Your task to perform on an android device: open app "McDonald's" (install if not already installed) and go to login screen Image 0: 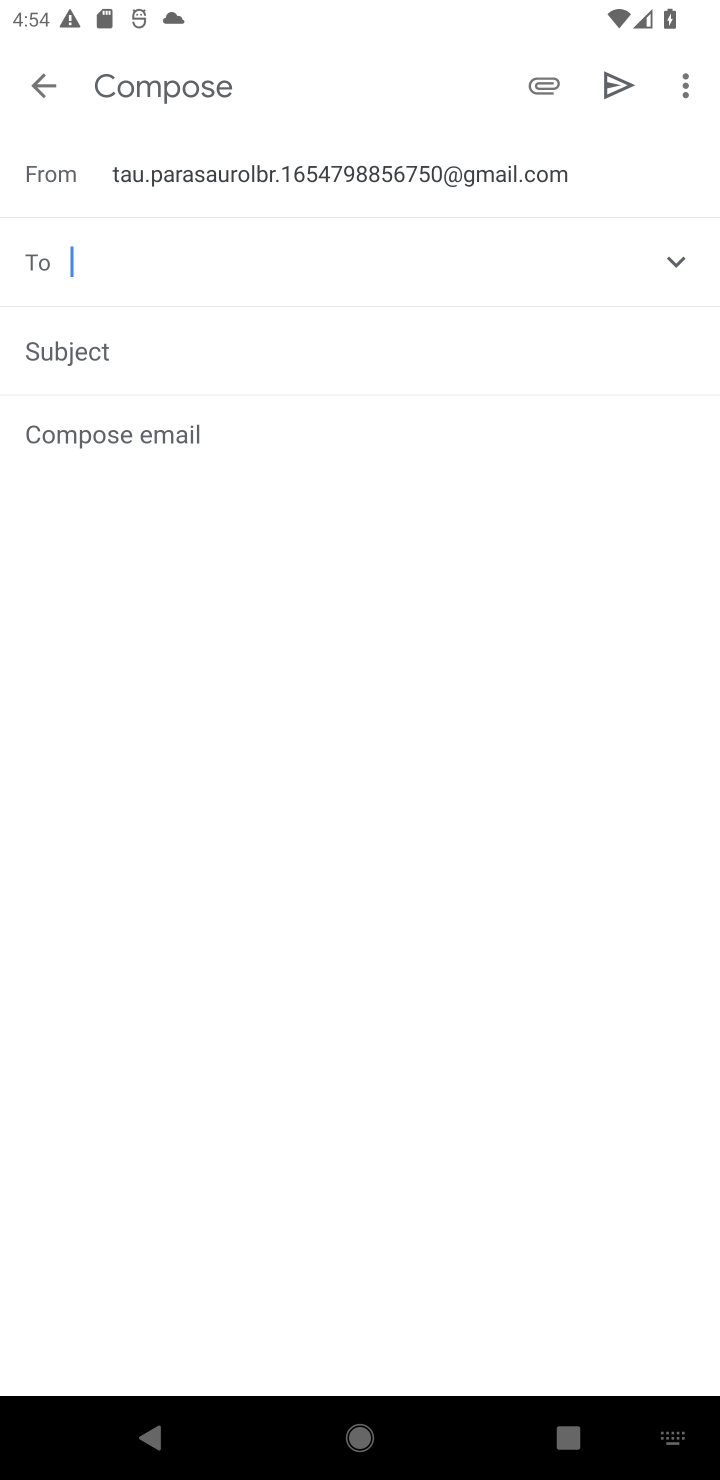
Step 0: press home button
Your task to perform on an android device: open app "McDonald's" (install if not already installed) and go to login screen Image 1: 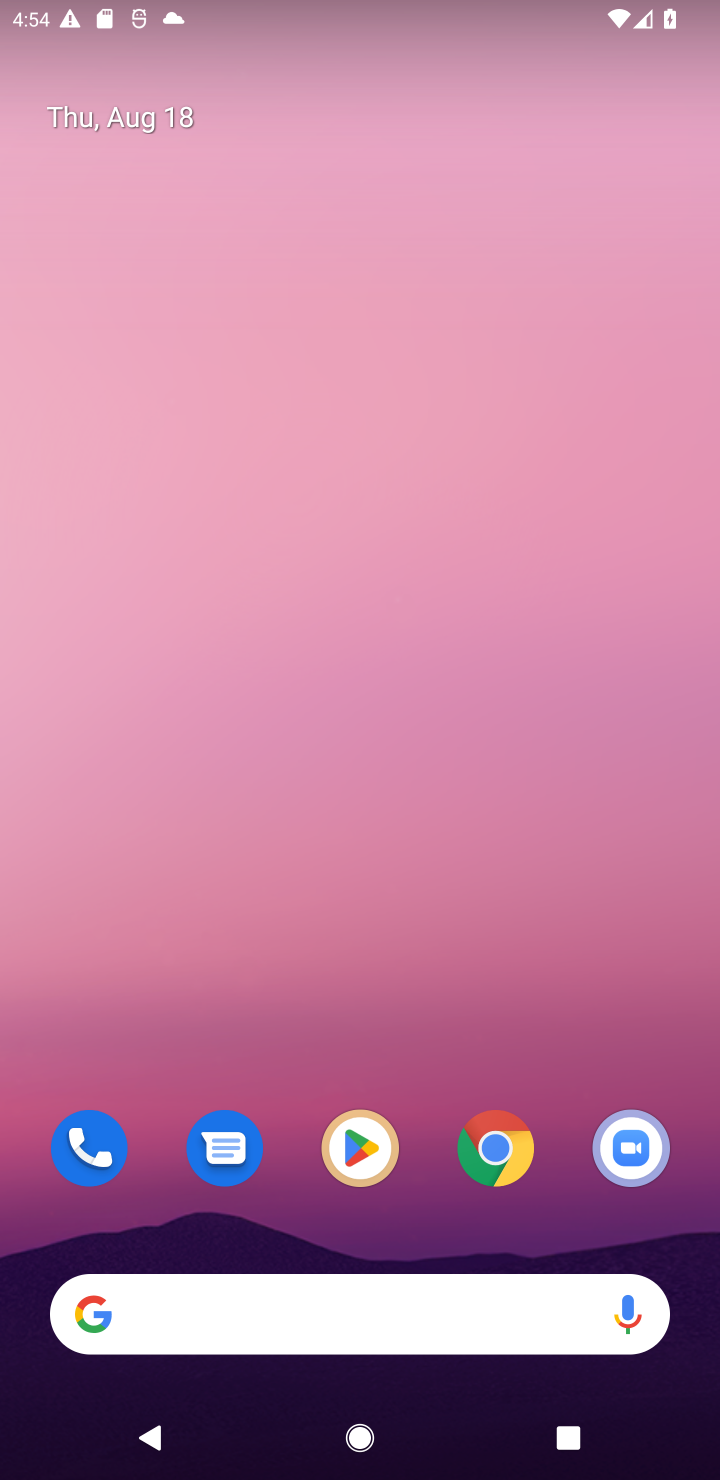
Step 1: drag from (379, 1179) to (285, 42)
Your task to perform on an android device: open app "McDonald's" (install if not already installed) and go to login screen Image 2: 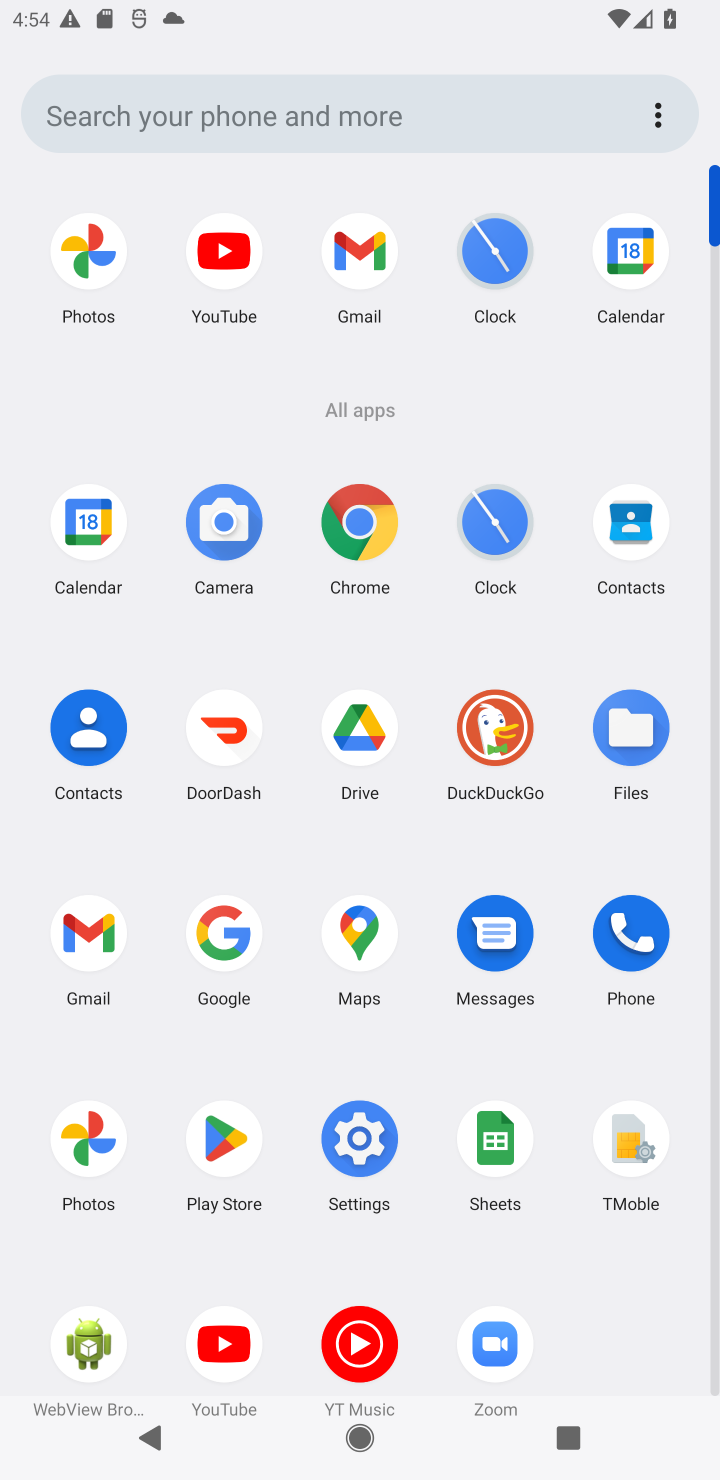
Step 2: click (237, 1135)
Your task to perform on an android device: open app "McDonald's" (install if not already installed) and go to login screen Image 3: 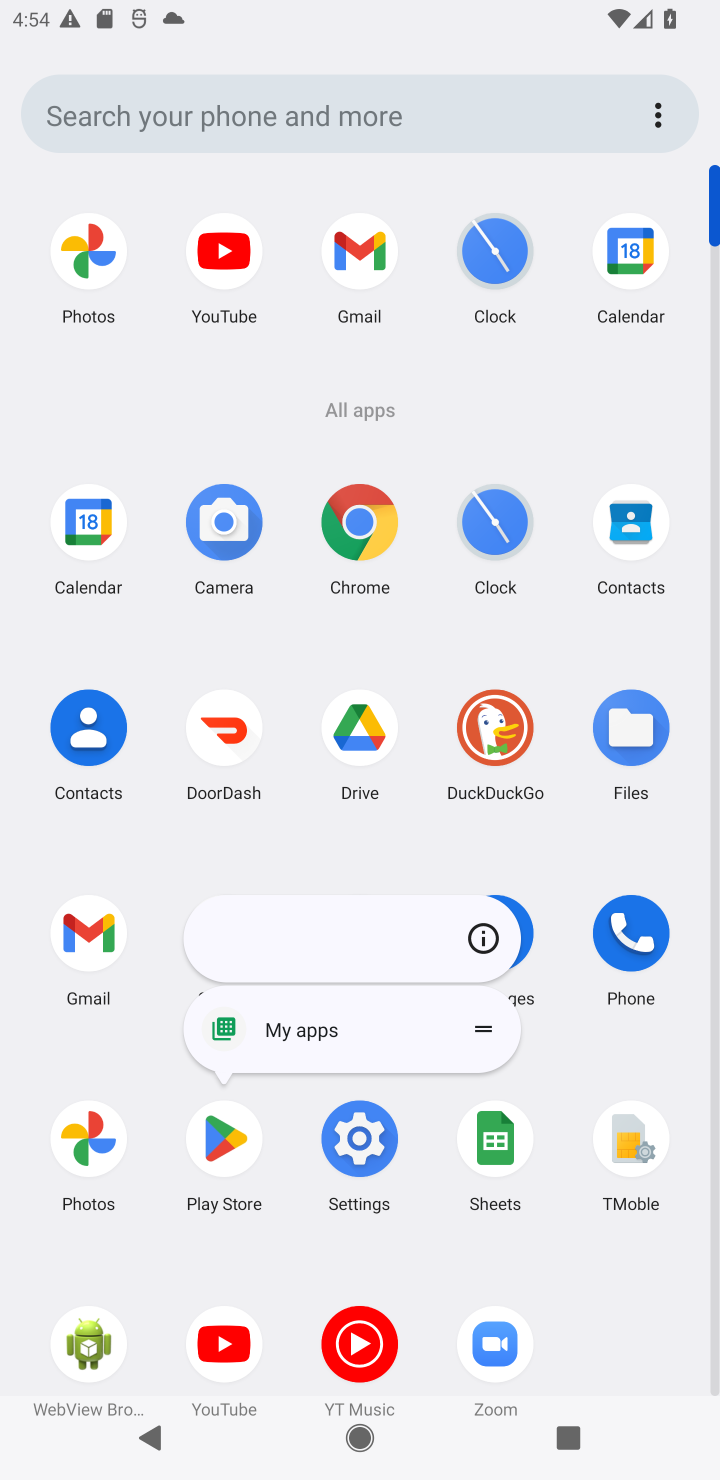
Step 3: click (235, 1129)
Your task to perform on an android device: open app "McDonald's" (install if not already installed) and go to login screen Image 4: 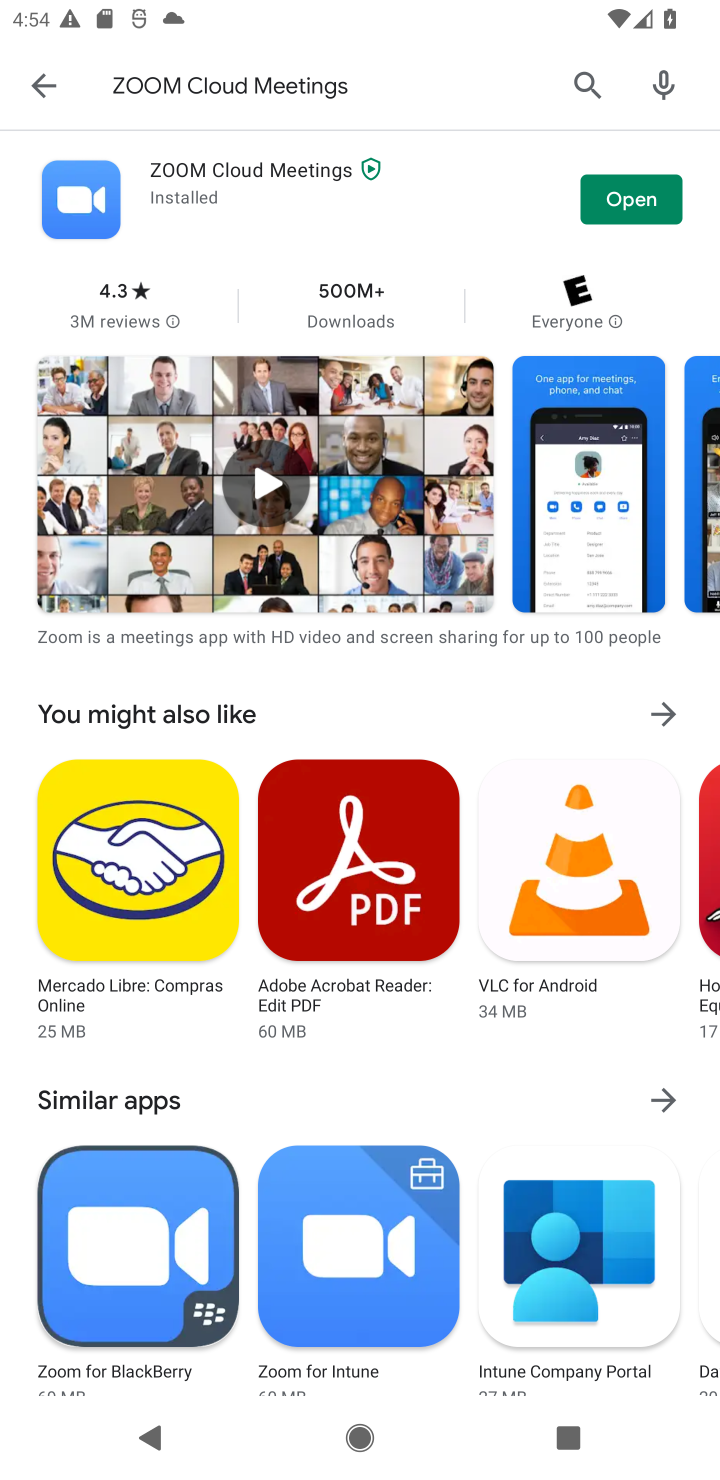
Step 4: click (27, 74)
Your task to perform on an android device: open app "McDonald's" (install if not already installed) and go to login screen Image 5: 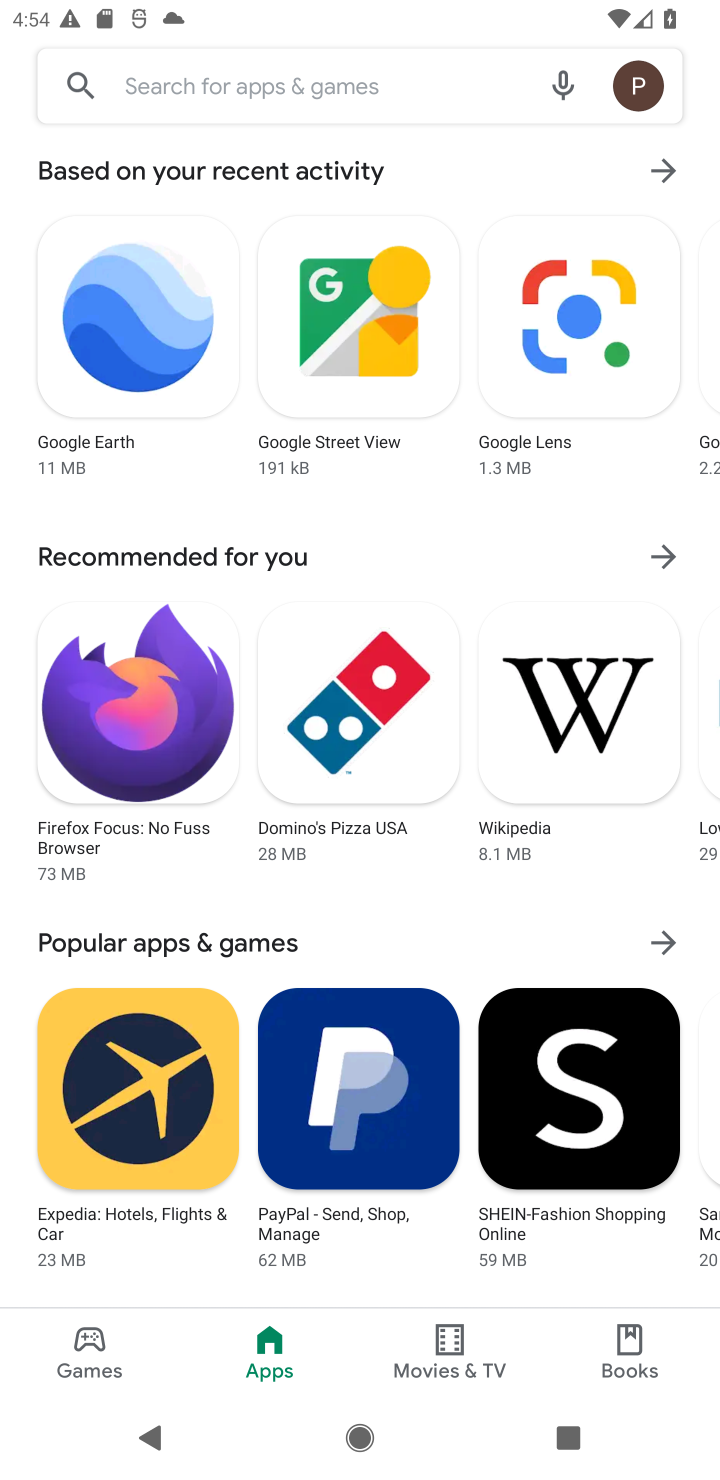
Step 5: click (192, 89)
Your task to perform on an android device: open app "McDonald's" (install if not already installed) and go to login screen Image 6: 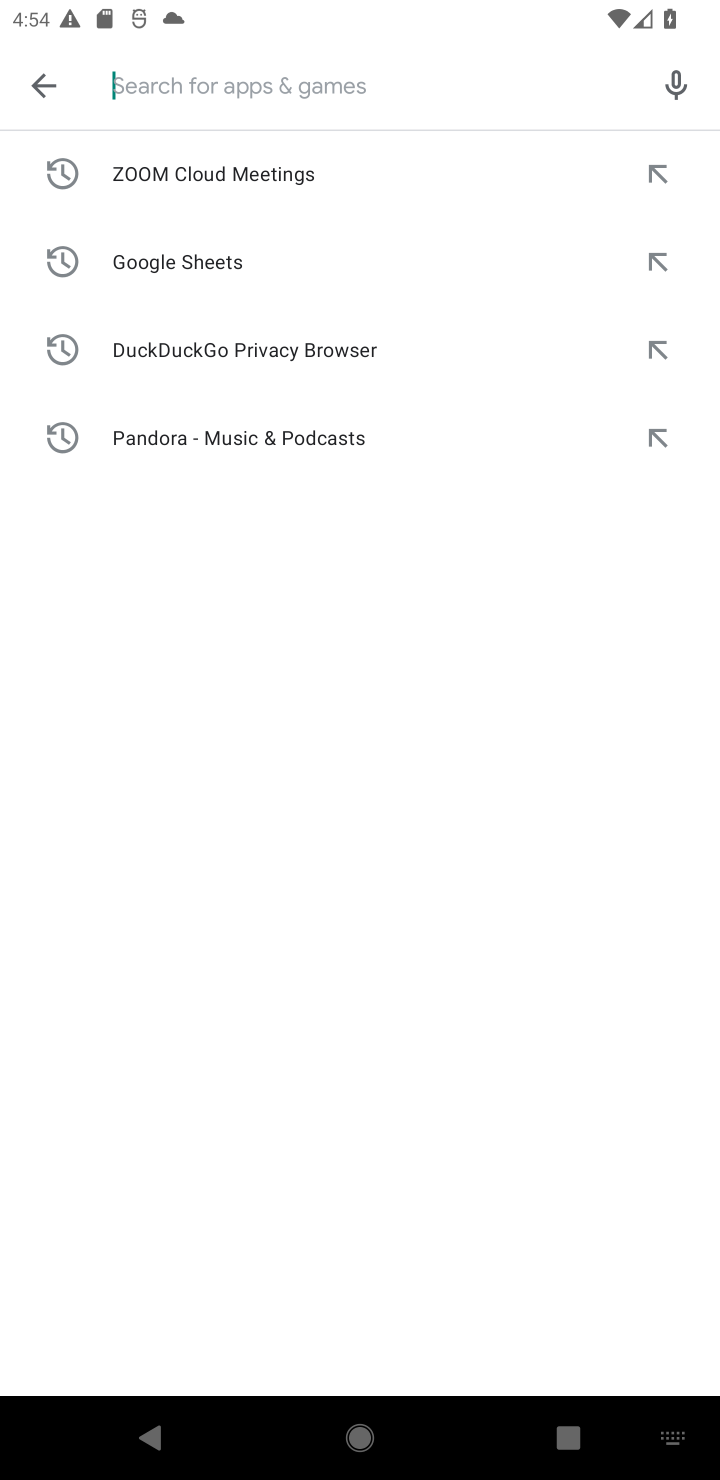
Step 6: type "McDonald's""
Your task to perform on an android device: open app "McDonald's" (install if not already installed) and go to login screen Image 7: 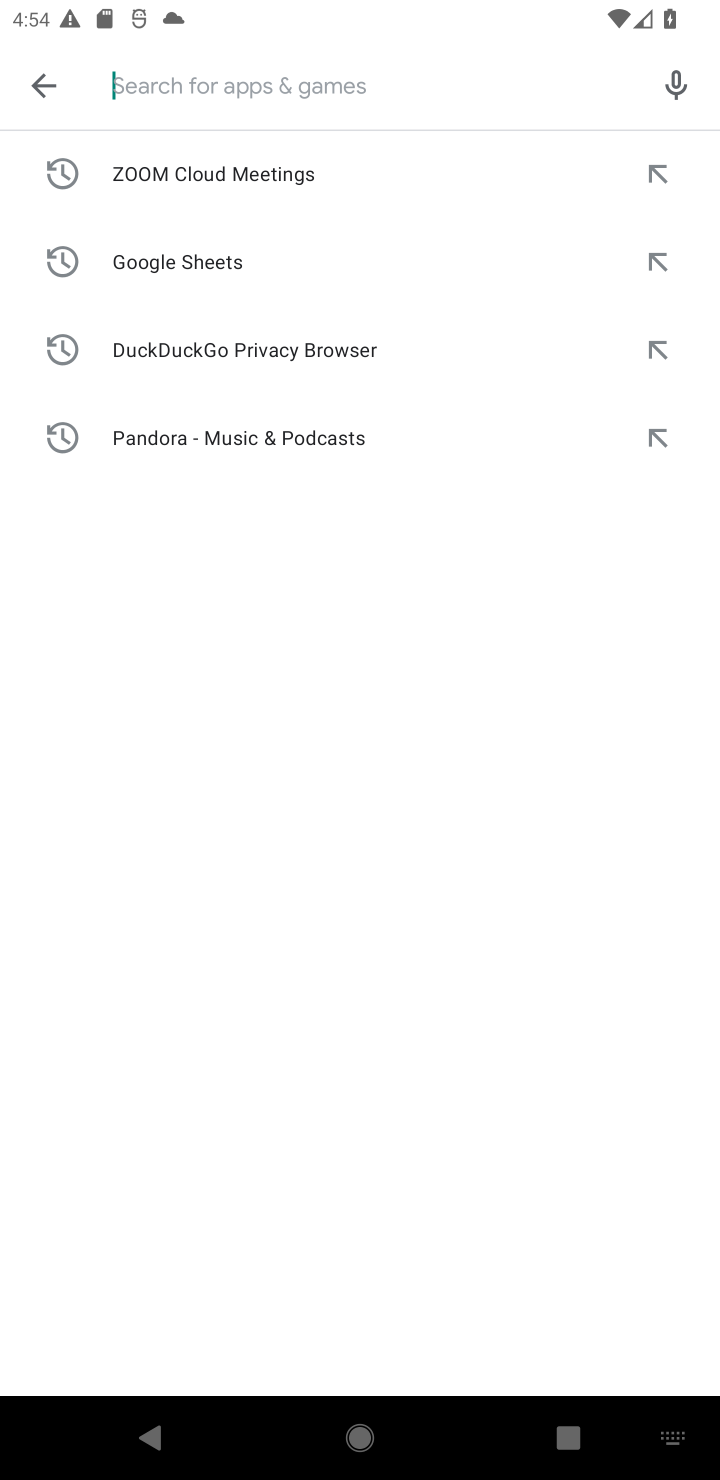
Step 7: press enter
Your task to perform on an android device: open app "McDonald's" (install if not already installed) and go to login screen Image 8: 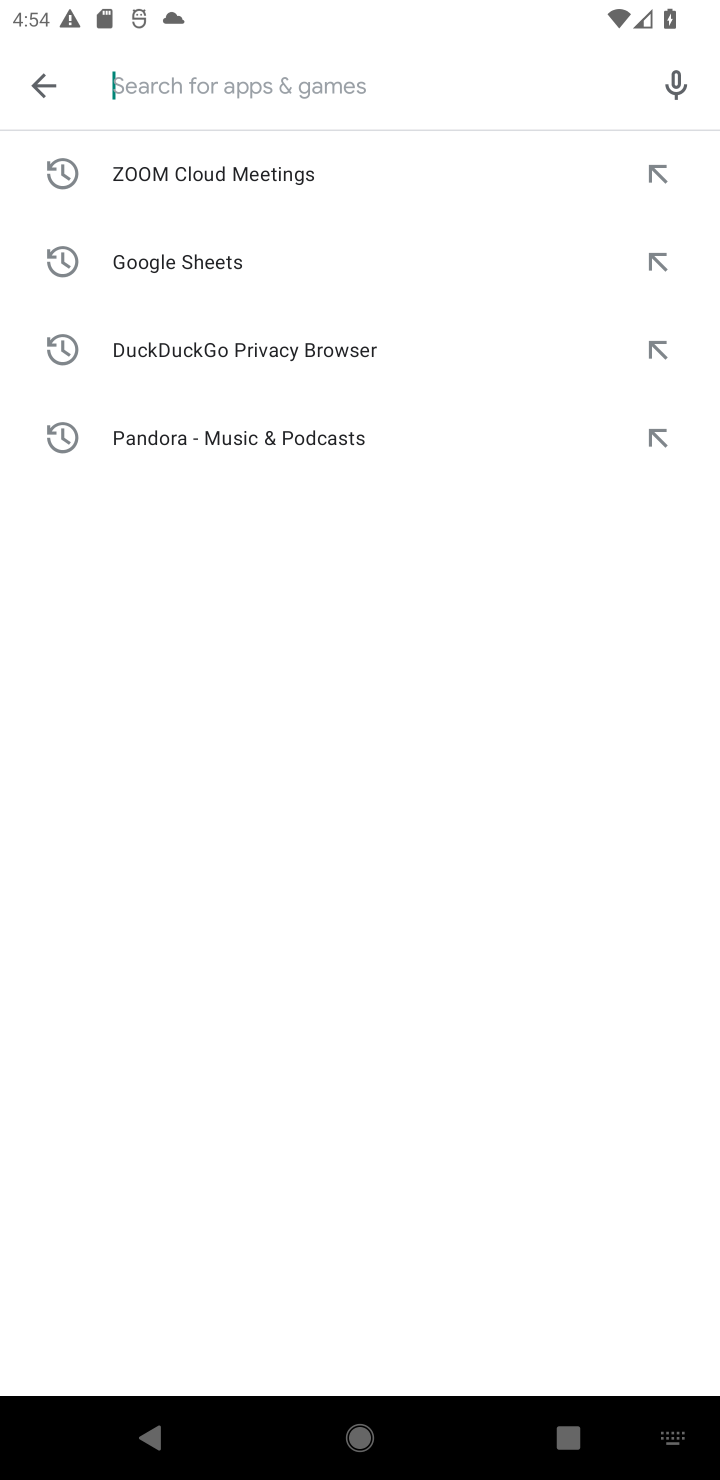
Step 8: type "McDonald's""
Your task to perform on an android device: open app "McDonald's" (install if not already installed) and go to login screen Image 9: 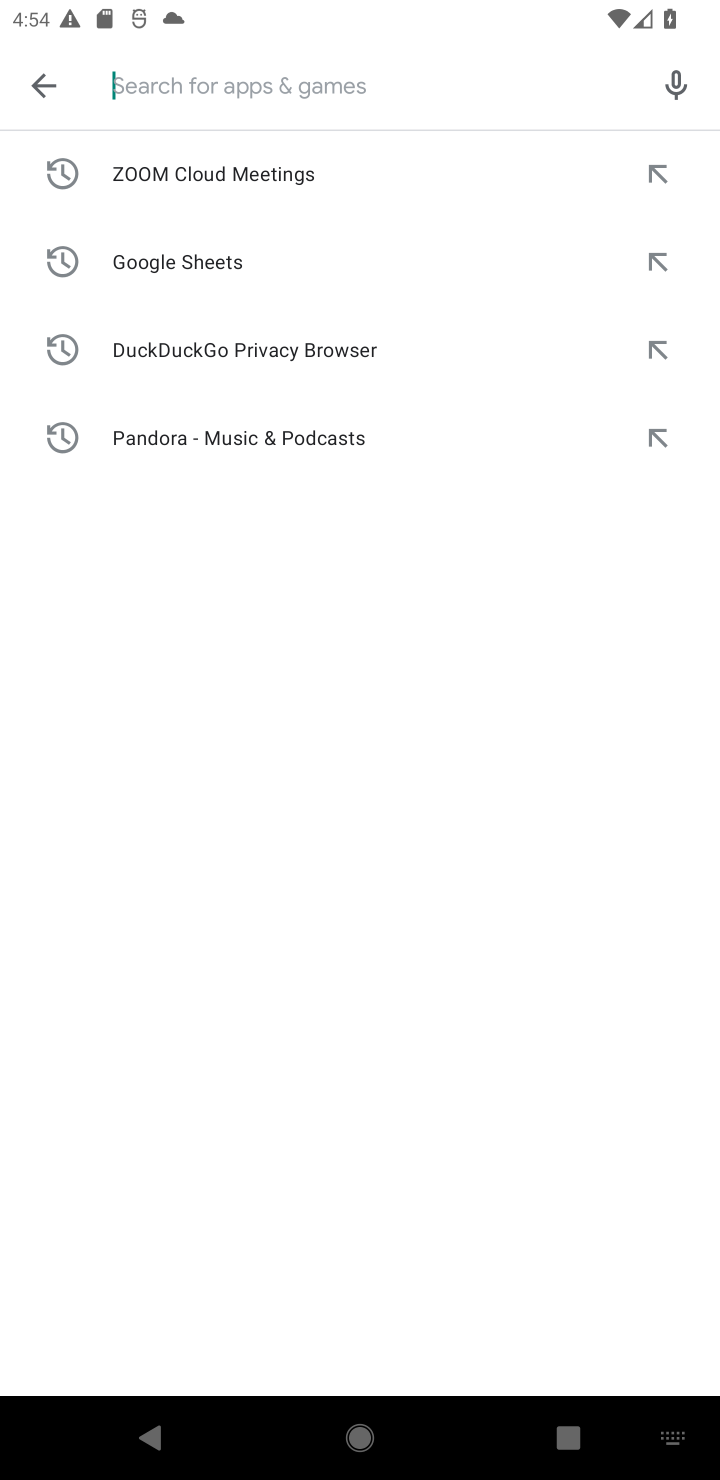
Step 9: press enter
Your task to perform on an android device: open app "McDonald's" (install if not already installed) and go to login screen Image 10: 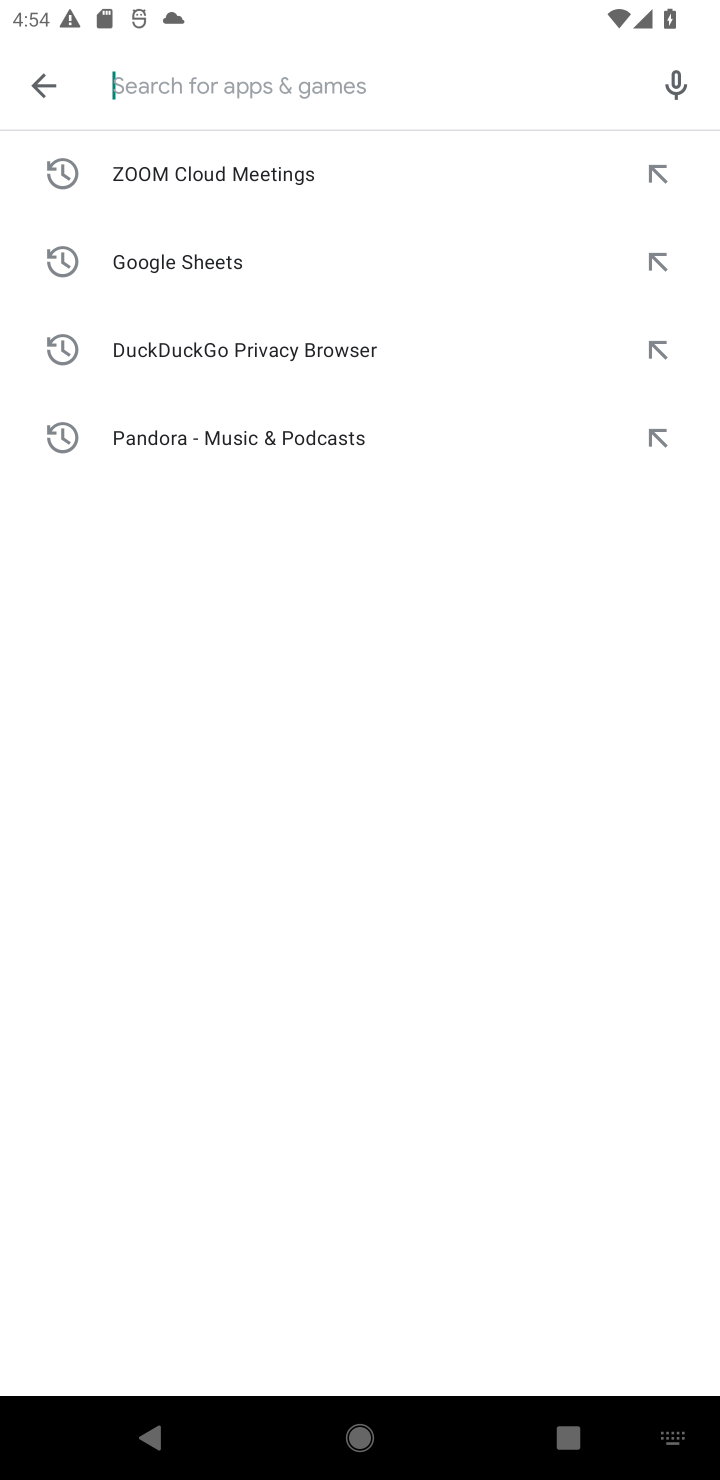
Step 10: type "McDonald's""
Your task to perform on an android device: open app "McDonald's" (install if not already installed) and go to login screen Image 11: 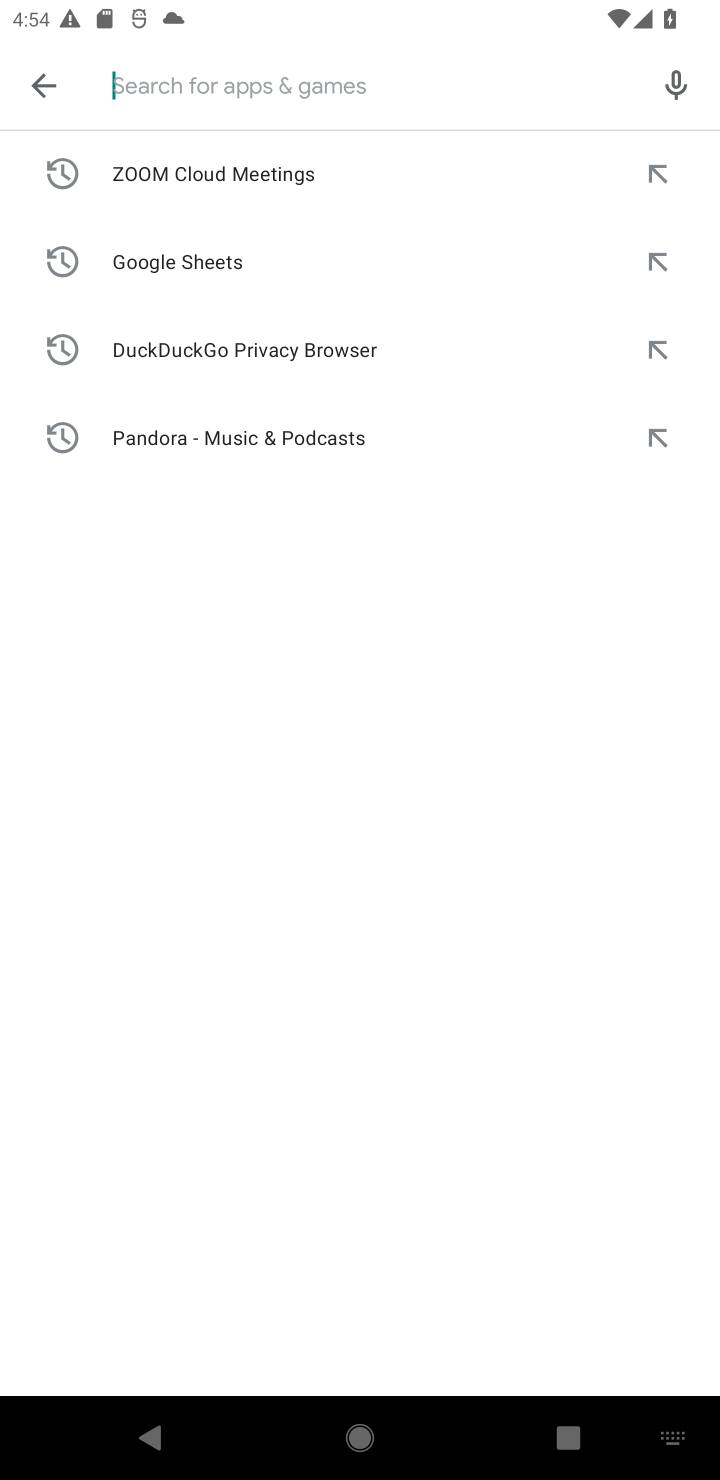
Step 11: press enter
Your task to perform on an android device: open app "McDonald's" (install if not already installed) and go to login screen Image 12: 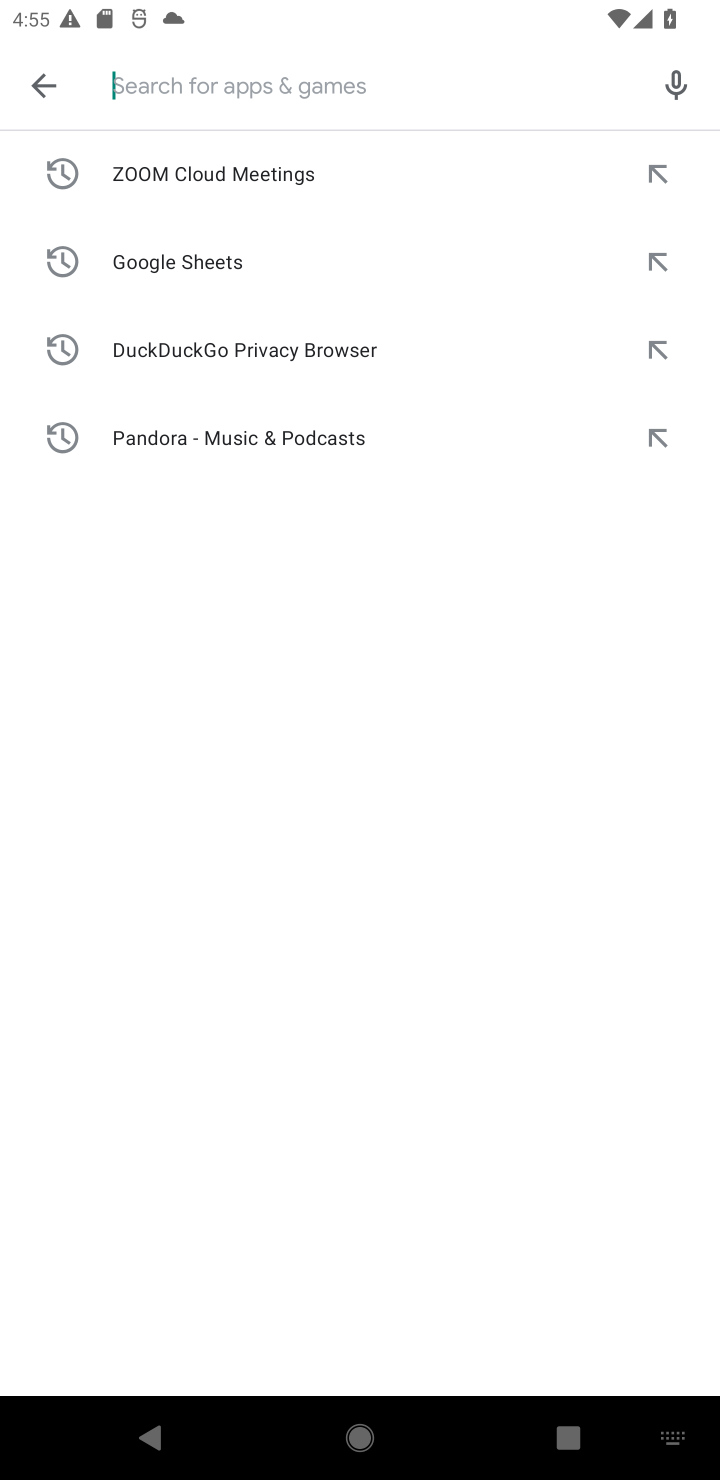
Step 12: type "mcdonalds"
Your task to perform on an android device: open app "McDonald's" (install if not already installed) and go to login screen Image 13: 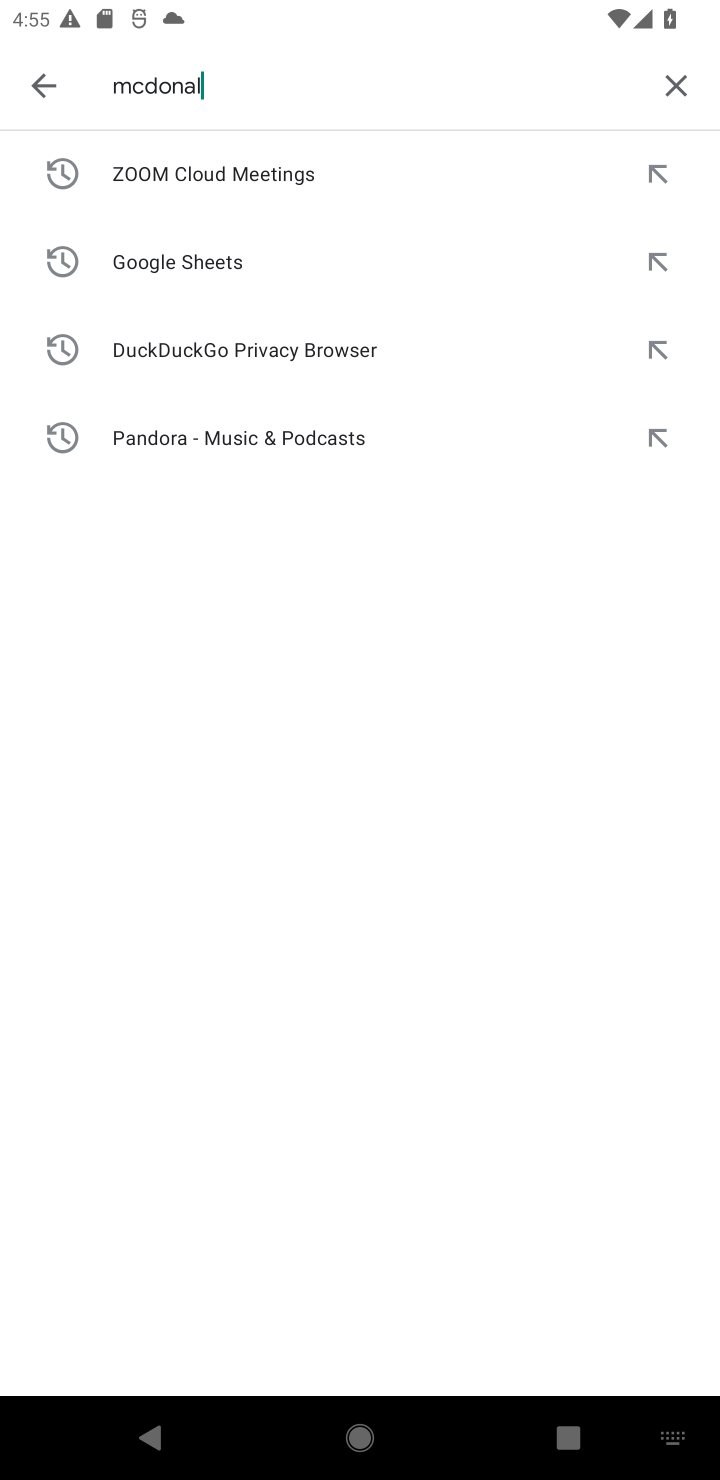
Step 13: press enter
Your task to perform on an android device: open app "McDonald's" (install if not already installed) and go to login screen Image 14: 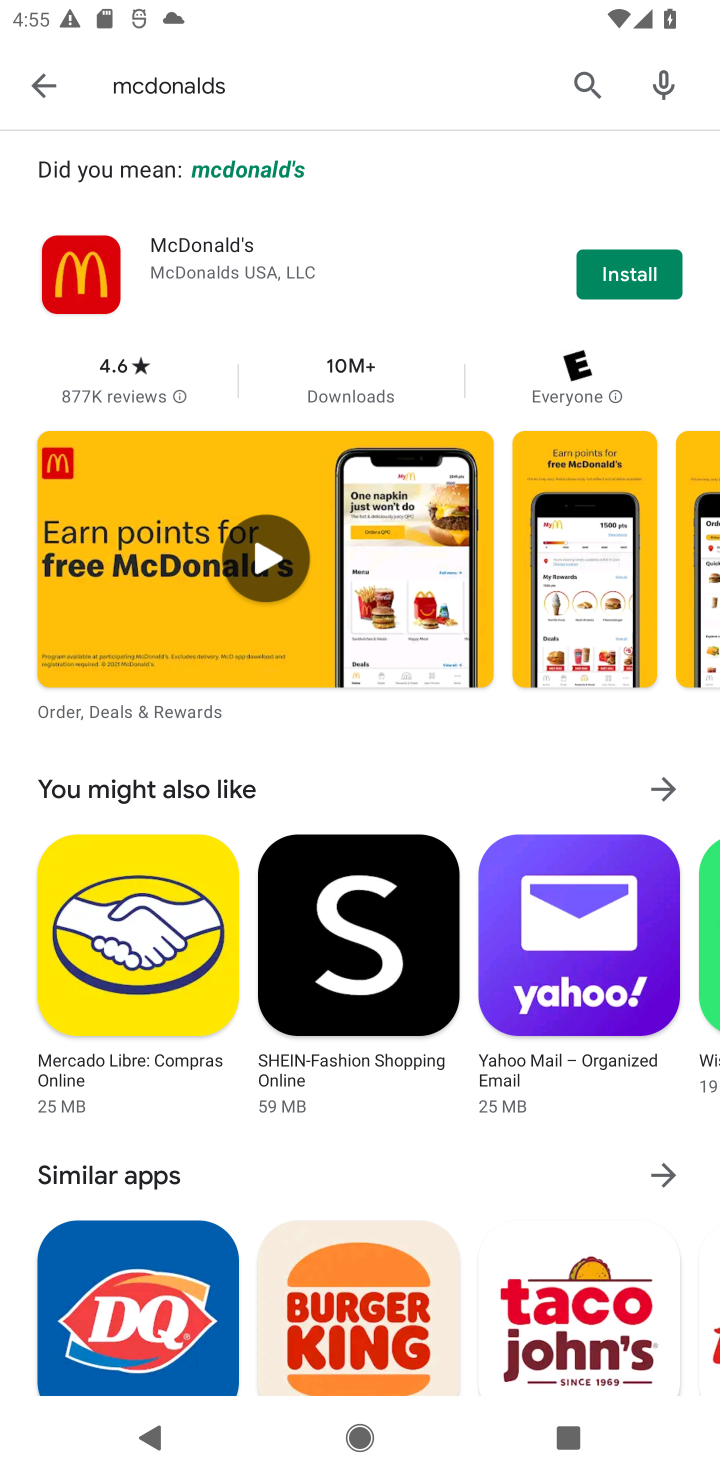
Step 14: click (603, 281)
Your task to perform on an android device: open app "McDonald's" (install if not already installed) and go to login screen Image 15: 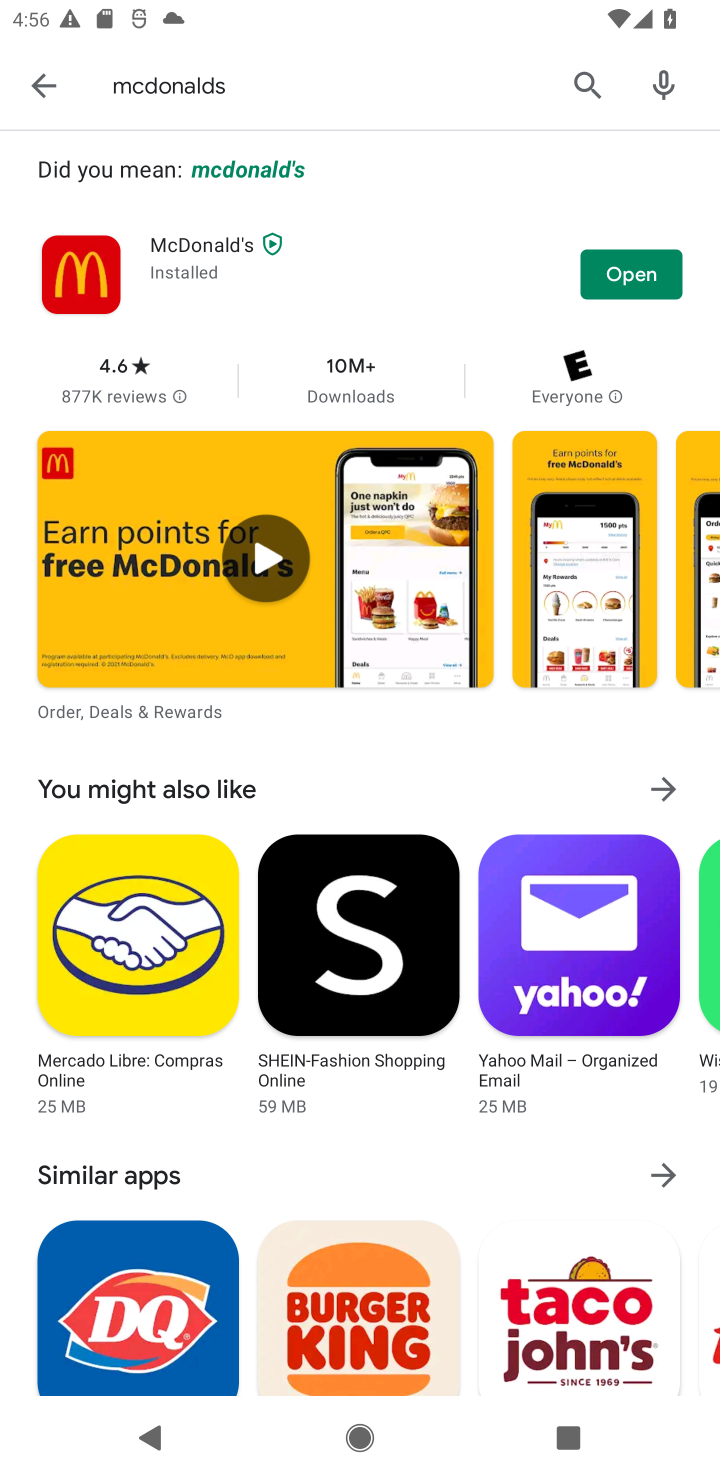
Step 15: click (626, 267)
Your task to perform on an android device: open app "McDonald's" (install if not already installed) and go to login screen Image 16: 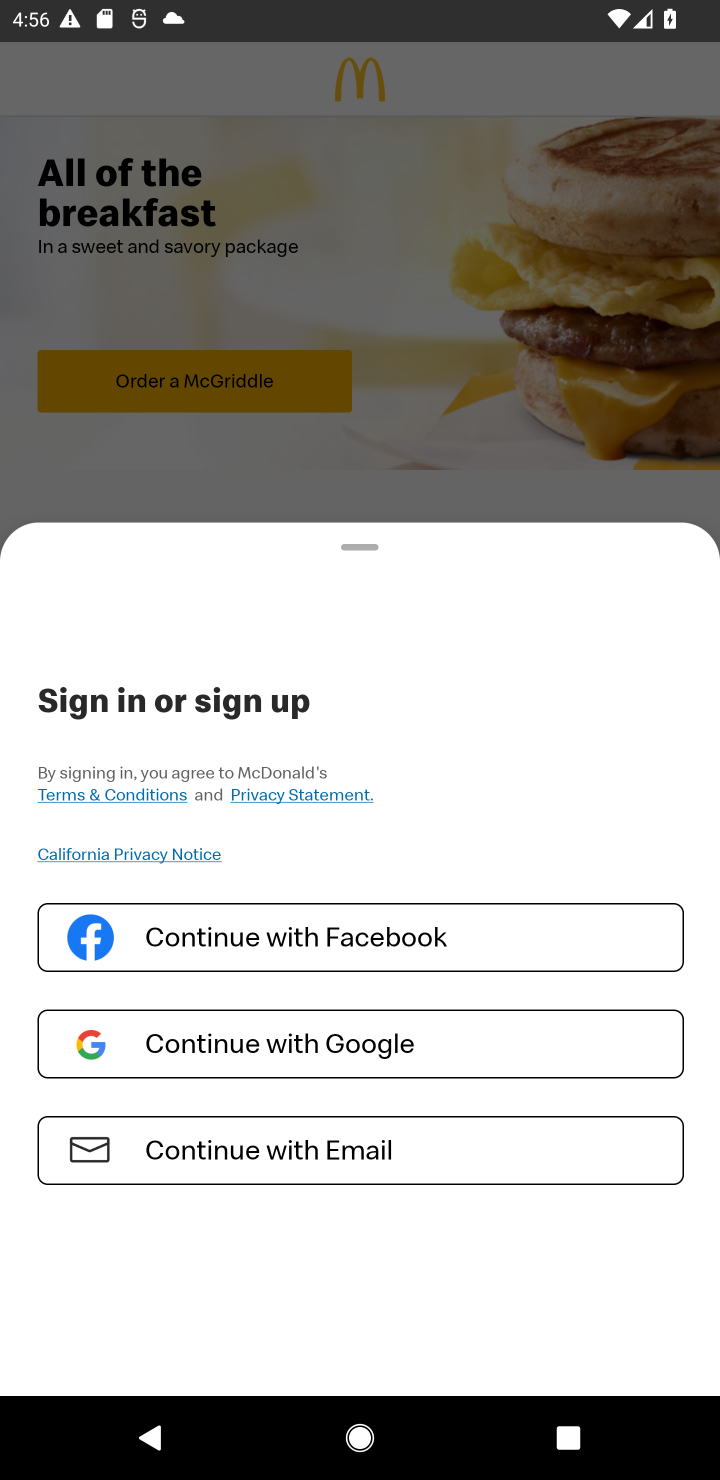
Step 16: task complete